Your task to perform on an android device: Open eBay Image 0: 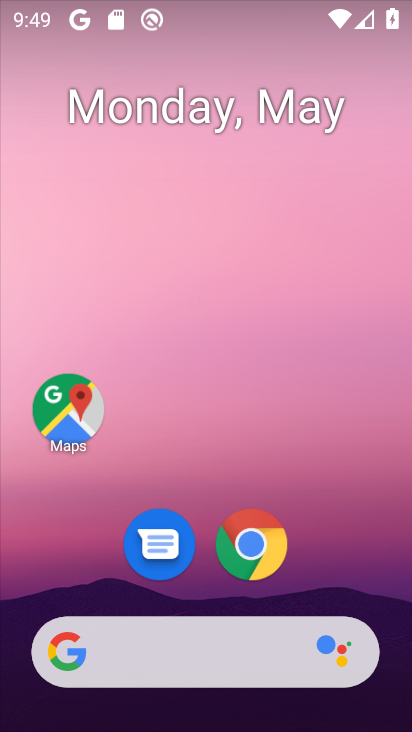
Step 0: drag from (331, 564) to (295, 211)
Your task to perform on an android device: Open eBay Image 1: 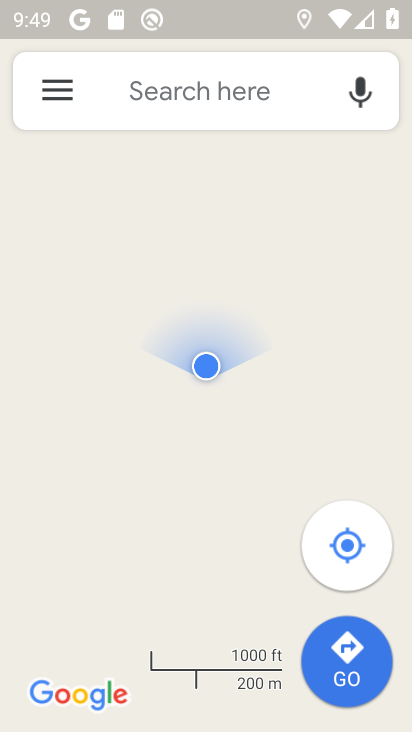
Step 1: press home button
Your task to perform on an android device: Open eBay Image 2: 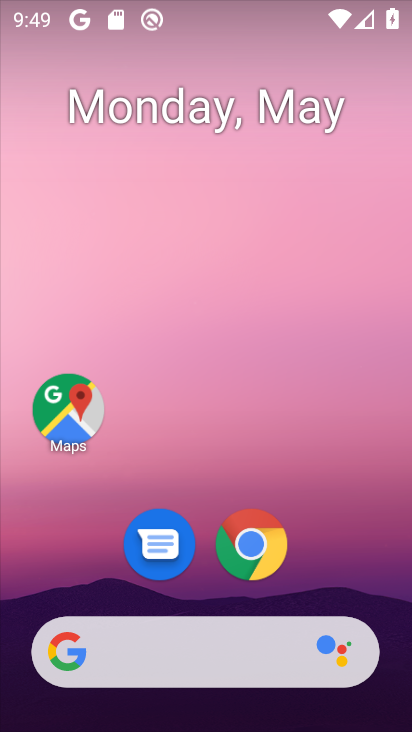
Step 2: click (252, 535)
Your task to perform on an android device: Open eBay Image 3: 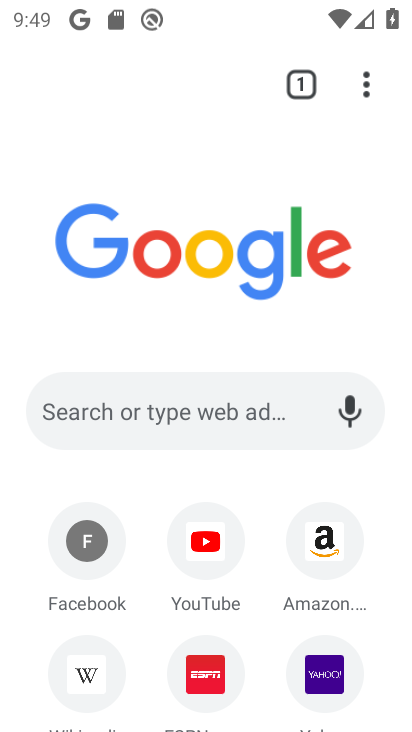
Step 3: click (168, 399)
Your task to perform on an android device: Open eBay Image 4: 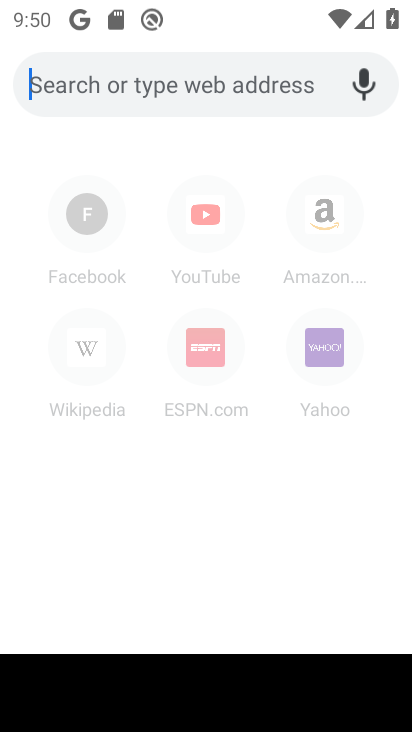
Step 4: type "ebay"
Your task to perform on an android device: Open eBay Image 5: 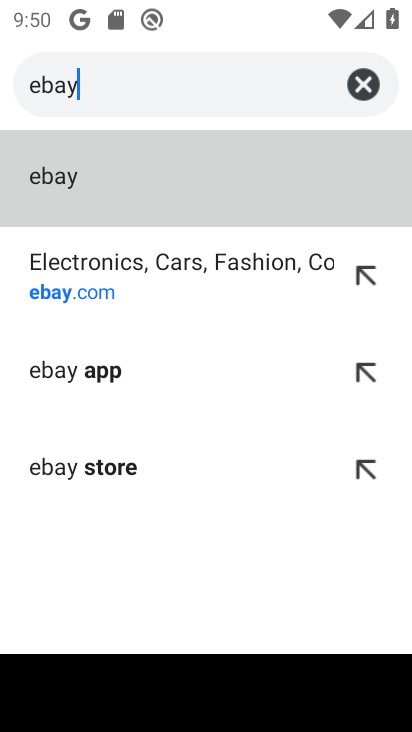
Step 5: click (72, 306)
Your task to perform on an android device: Open eBay Image 6: 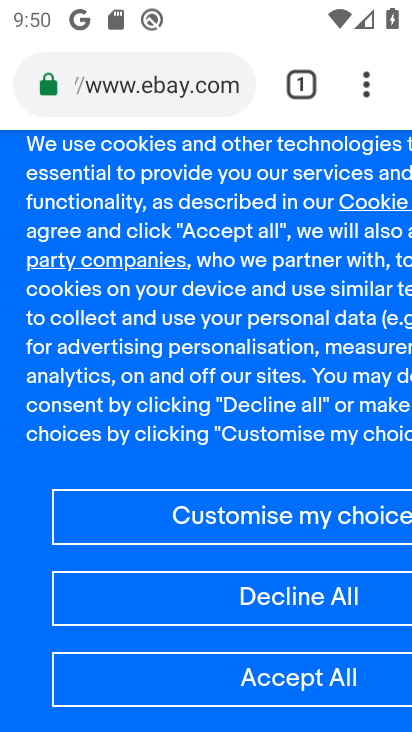
Step 6: drag from (276, 251) to (283, 667)
Your task to perform on an android device: Open eBay Image 7: 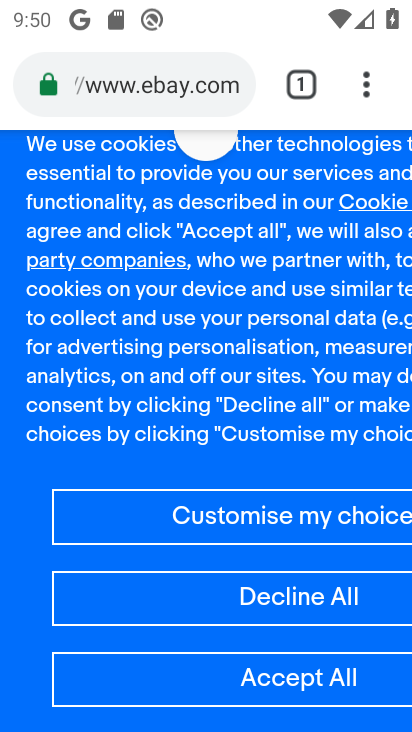
Step 7: drag from (278, 689) to (295, 173)
Your task to perform on an android device: Open eBay Image 8: 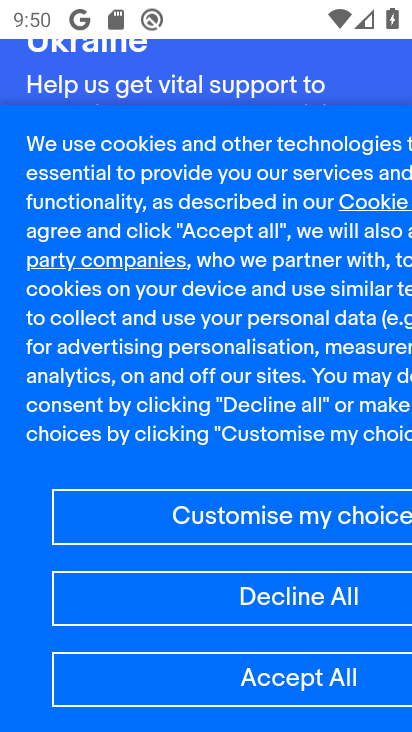
Step 8: press home button
Your task to perform on an android device: Open eBay Image 9: 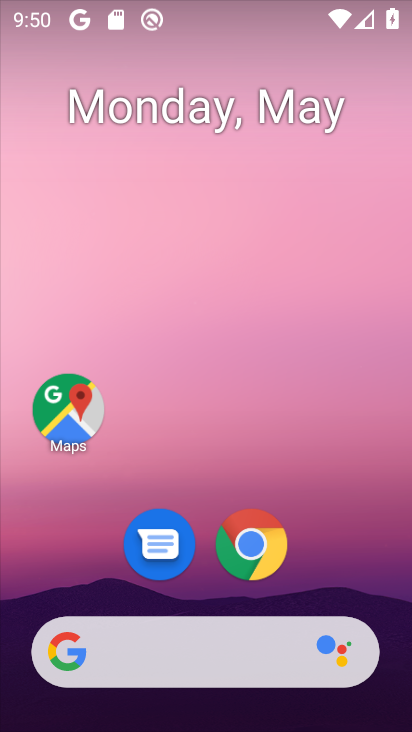
Step 9: click (256, 546)
Your task to perform on an android device: Open eBay Image 10: 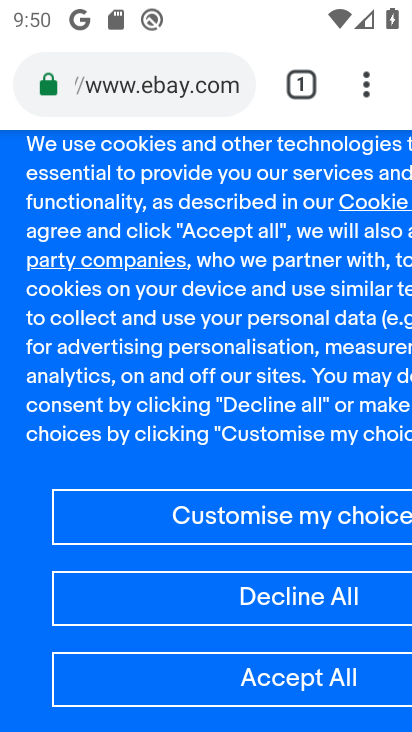
Step 10: click (308, 675)
Your task to perform on an android device: Open eBay Image 11: 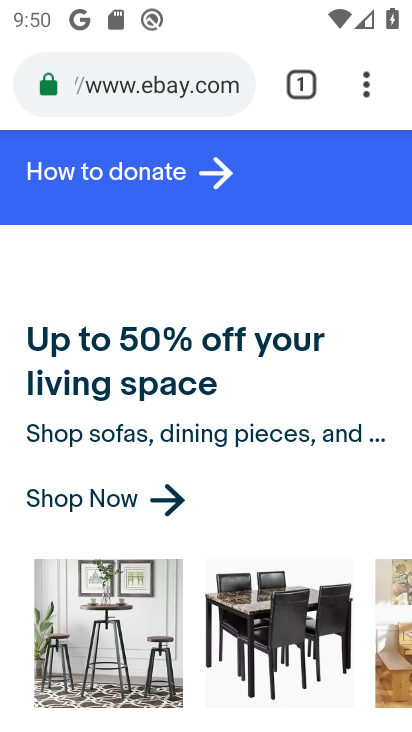
Step 11: task complete